Your task to perform on an android device: toggle notifications settings in the gmail app Image 0: 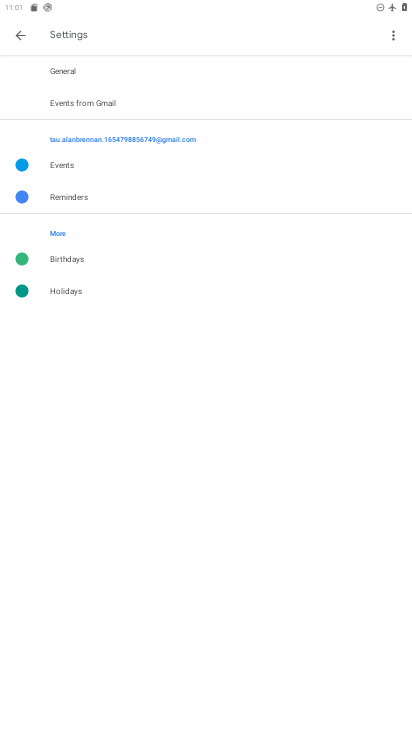
Step 0: press home button
Your task to perform on an android device: toggle notifications settings in the gmail app Image 1: 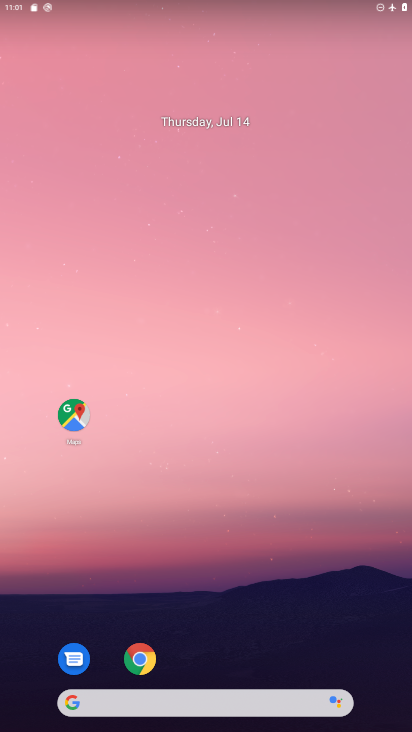
Step 1: drag from (271, 604) to (263, 187)
Your task to perform on an android device: toggle notifications settings in the gmail app Image 2: 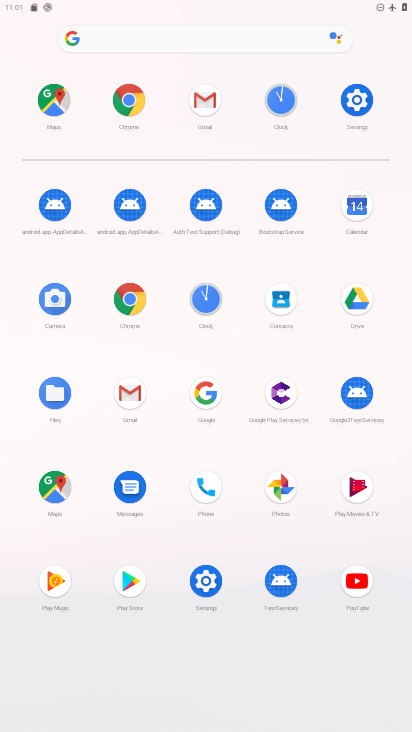
Step 2: click (206, 97)
Your task to perform on an android device: toggle notifications settings in the gmail app Image 3: 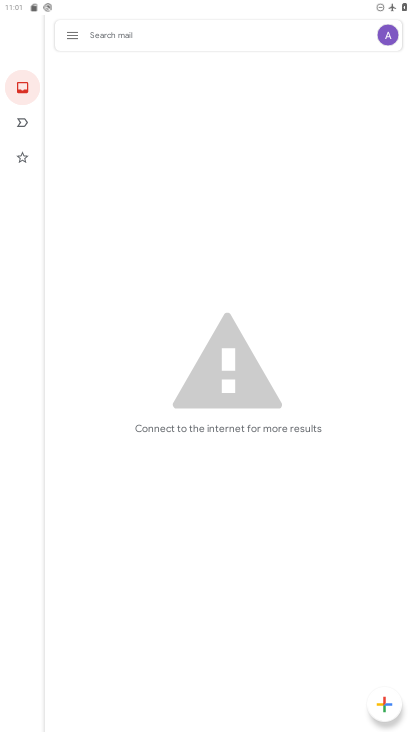
Step 3: click (78, 32)
Your task to perform on an android device: toggle notifications settings in the gmail app Image 4: 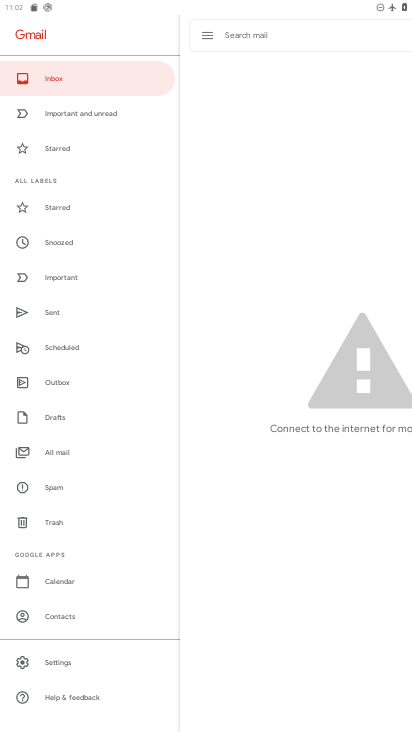
Step 4: click (53, 667)
Your task to perform on an android device: toggle notifications settings in the gmail app Image 5: 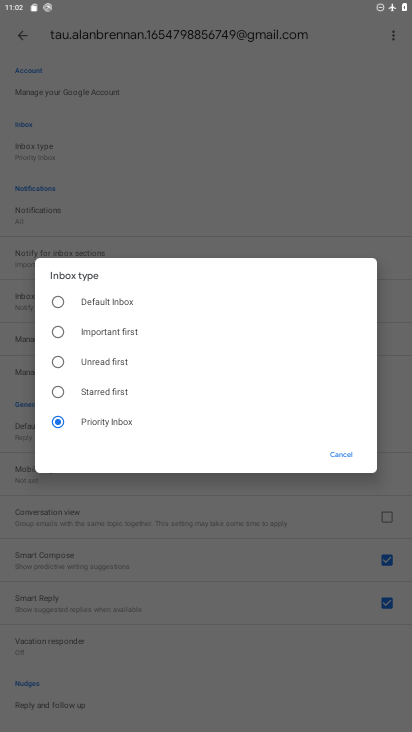
Step 5: click (346, 454)
Your task to perform on an android device: toggle notifications settings in the gmail app Image 6: 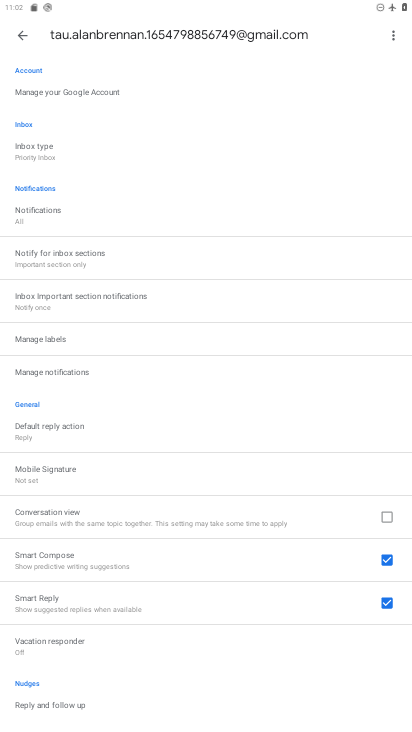
Step 6: click (85, 369)
Your task to perform on an android device: toggle notifications settings in the gmail app Image 7: 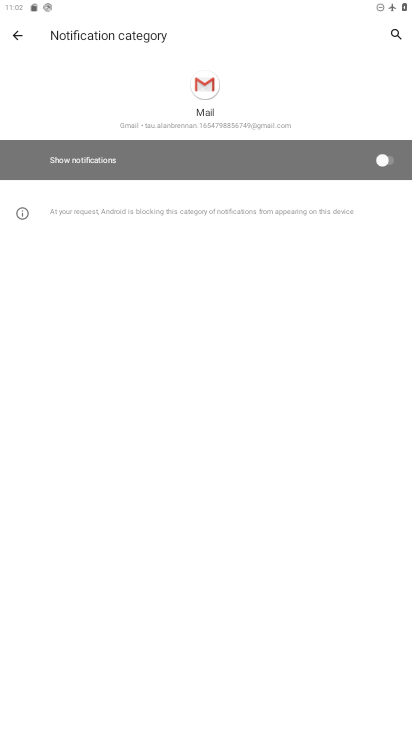
Step 7: click (378, 155)
Your task to perform on an android device: toggle notifications settings in the gmail app Image 8: 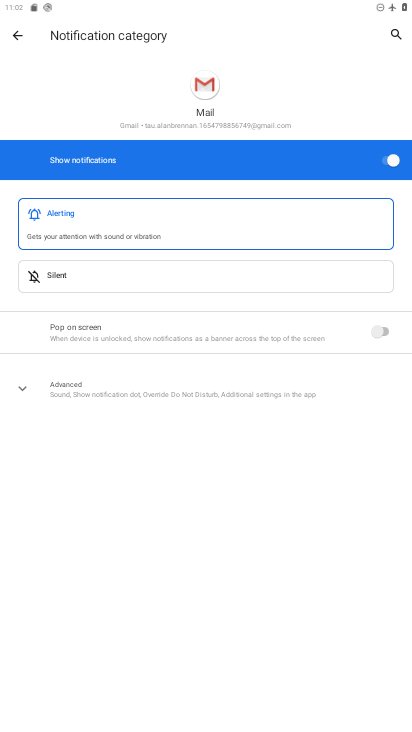
Step 8: task complete